Your task to perform on an android device: Open a new Chrome private tab Image 0: 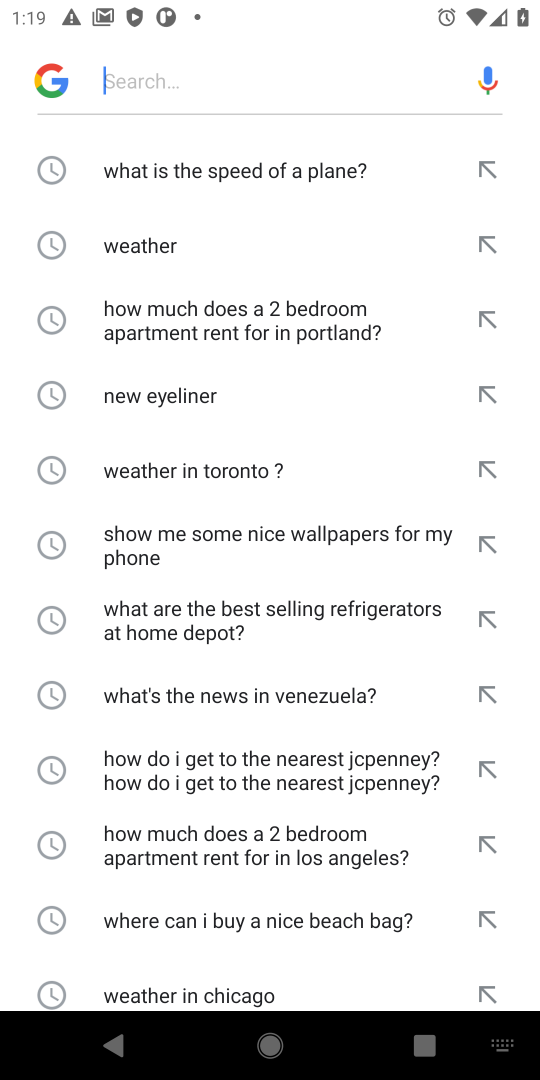
Step 0: press home button
Your task to perform on an android device: Open a new Chrome private tab Image 1: 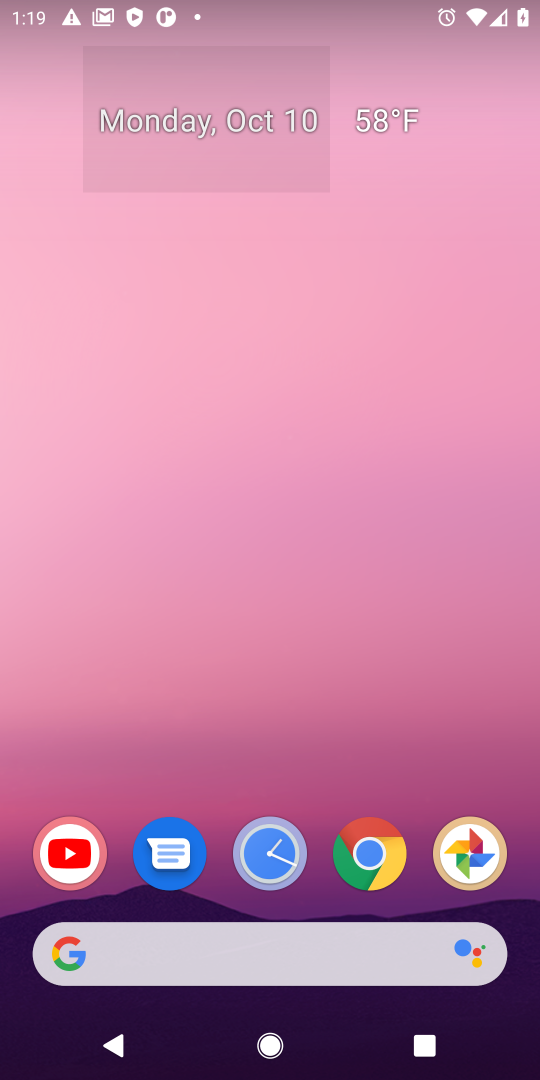
Step 1: click (381, 848)
Your task to perform on an android device: Open a new Chrome private tab Image 2: 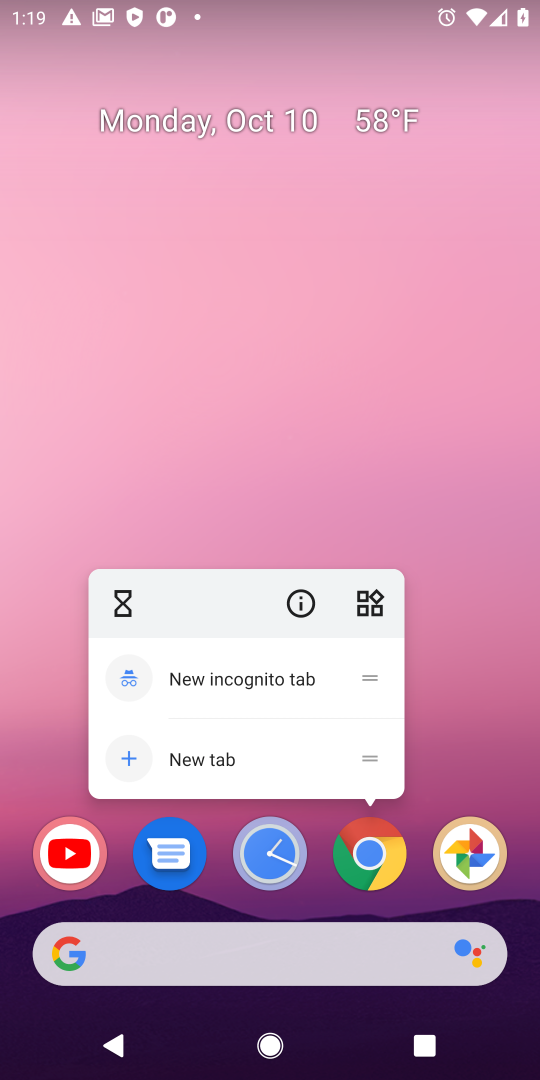
Step 2: click (381, 848)
Your task to perform on an android device: Open a new Chrome private tab Image 3: 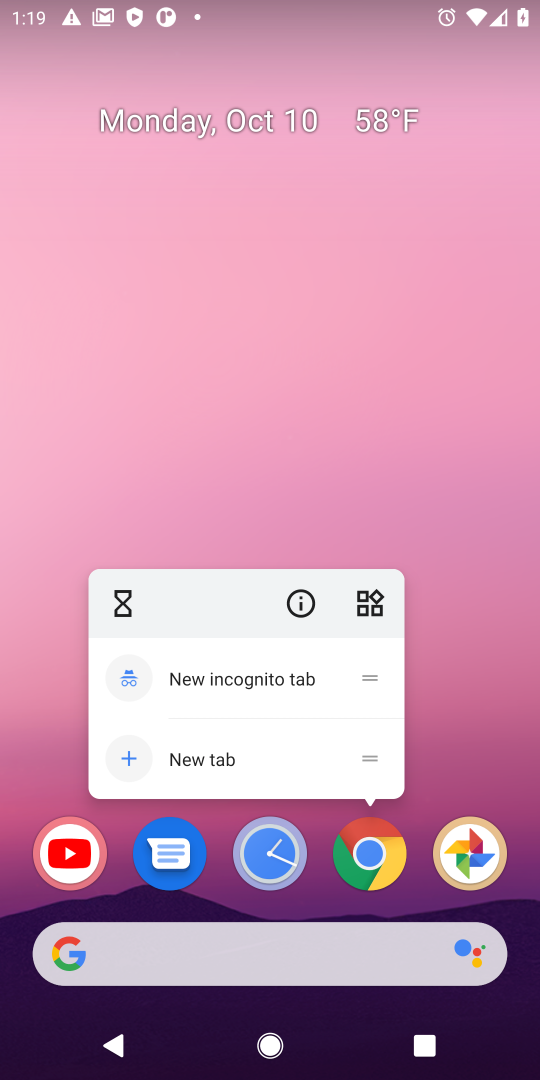
Step 3: click (381, 848)
Your task to perform on an android device: Open a new Chrome private tab Image 4: 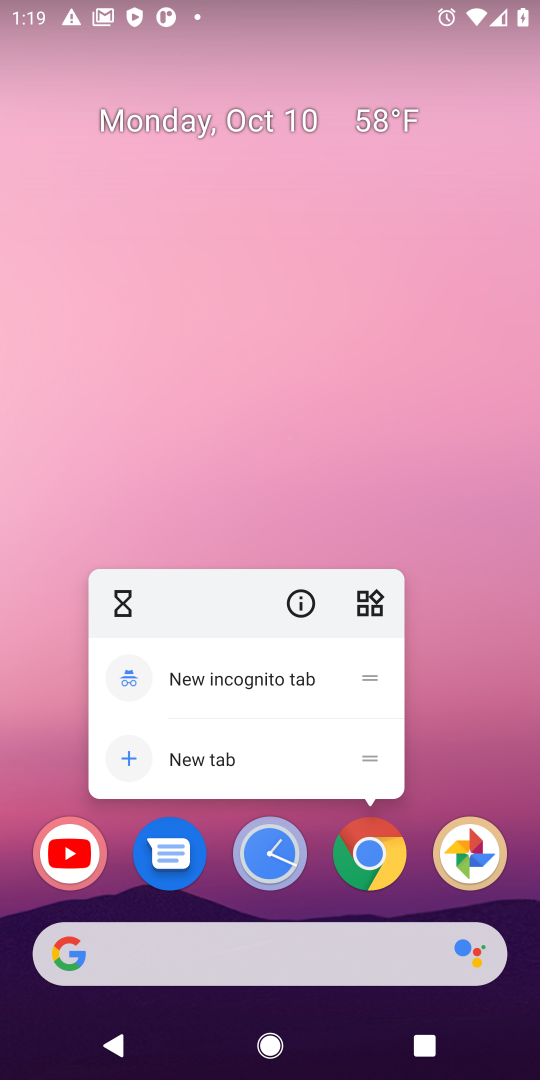
Step 4: click (375, 851)
Your task to perform on an android device: Open a new Chrome private tab Image 5: 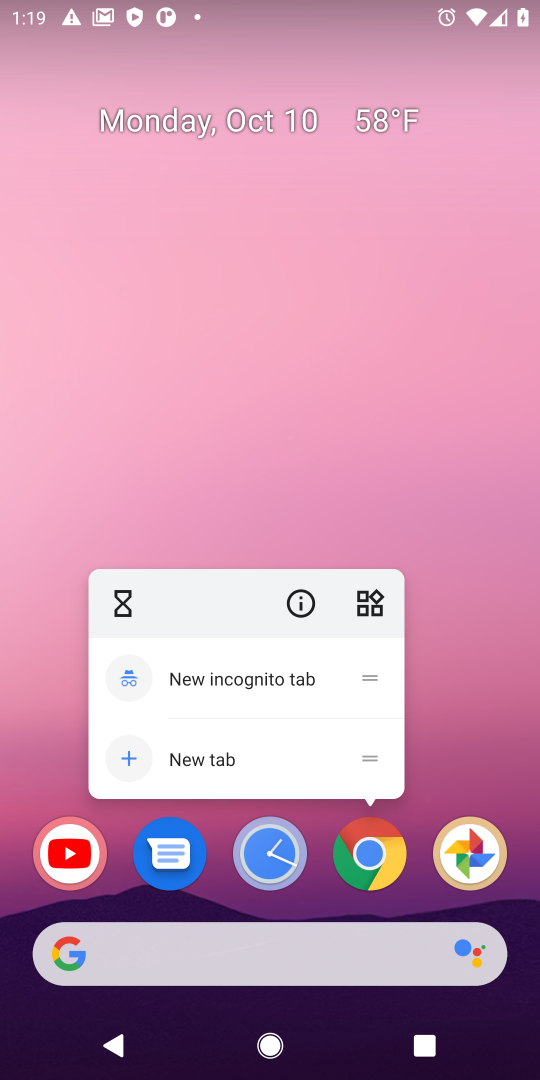
Step 5: click (375, 851)
Your task to perform on an android device: Open a new Chrome private tab Image 6: 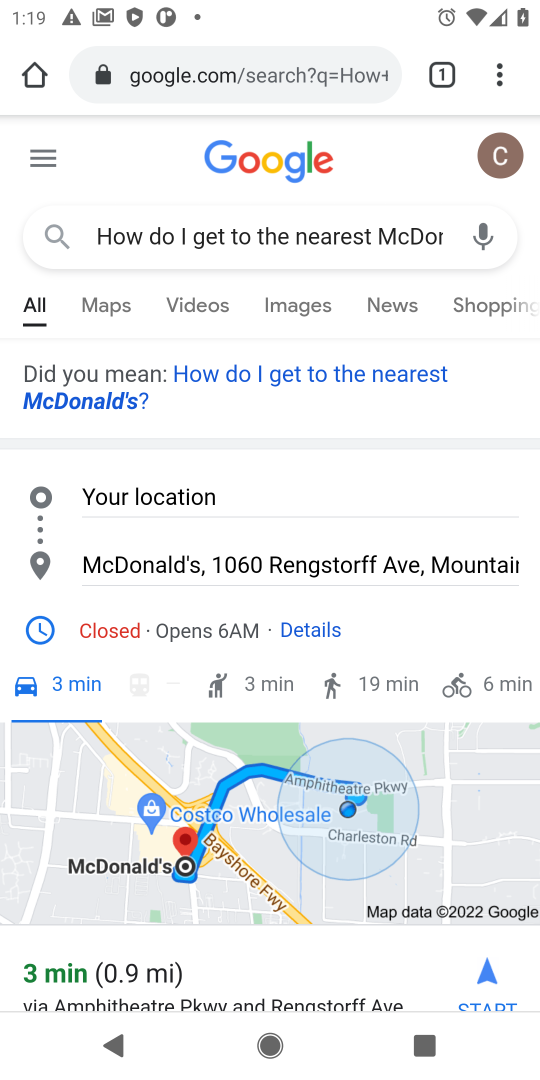
Step 6: task complete